Your task to perform on an android device: turn pop-ups off in chrome Image 0: 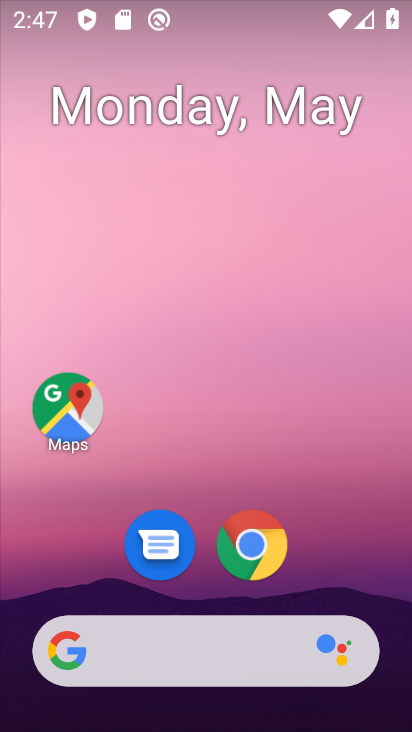
Step 0: click (255, 554)
Your task to perform on an android device: turn pop-ups off in chrome Image 1: 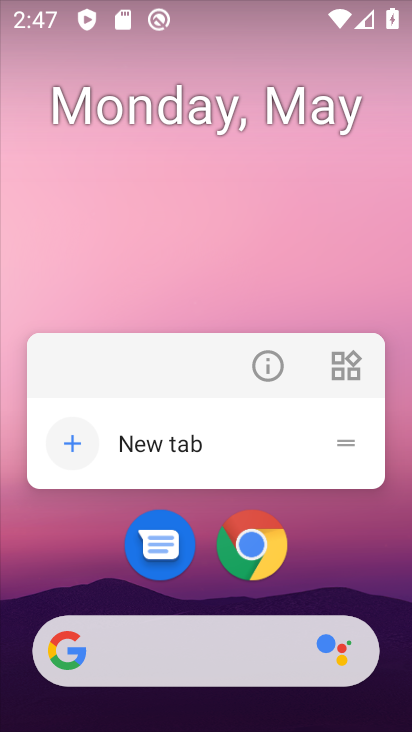
Step 1: click (249, 558)
Your task to perform on an android device: turn pop-ups off in chrome Image 2: 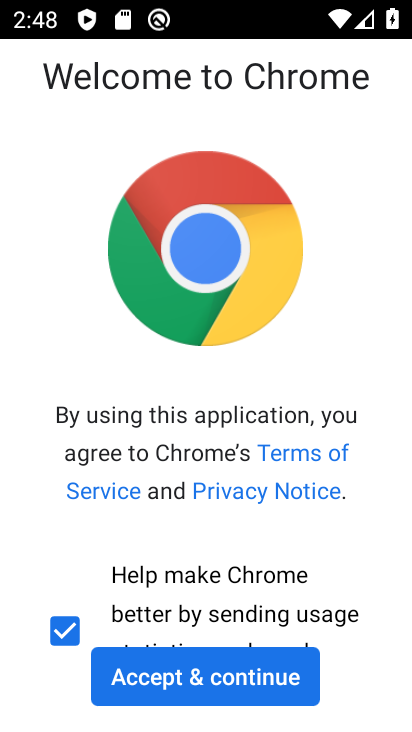
Step 2: click (169, 678)
Your task to perform on an android device: turn pop-ups off in chrome Image 3: 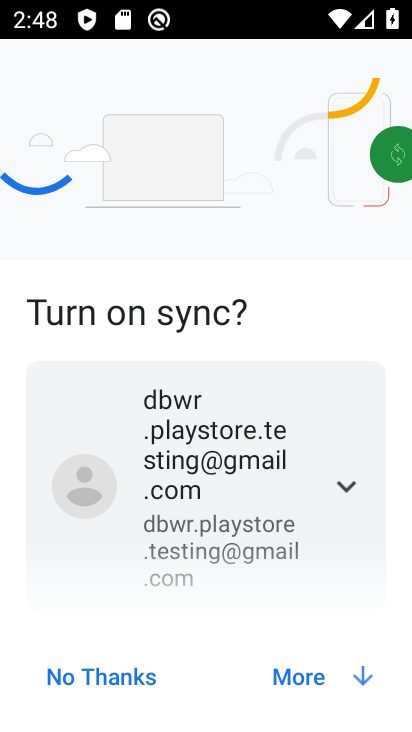
Step 3: click (327, 675)
Your task to perform on an android device: turn pop-ups off in chrome Image 4: 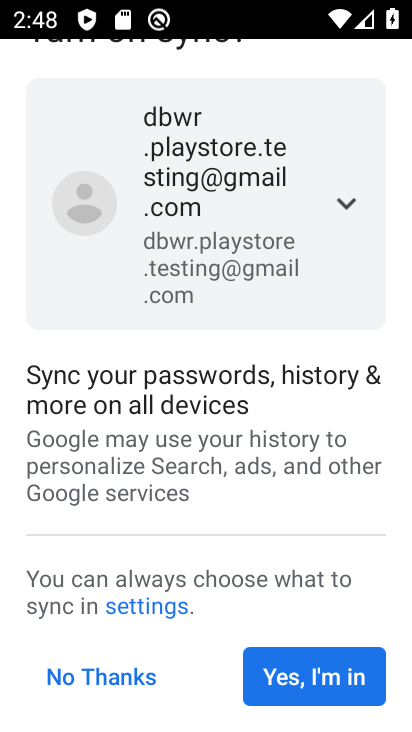
Step 4: click (333, 680)
Your task to perform on an android device: turn pop-ups off in chrome Image 5: 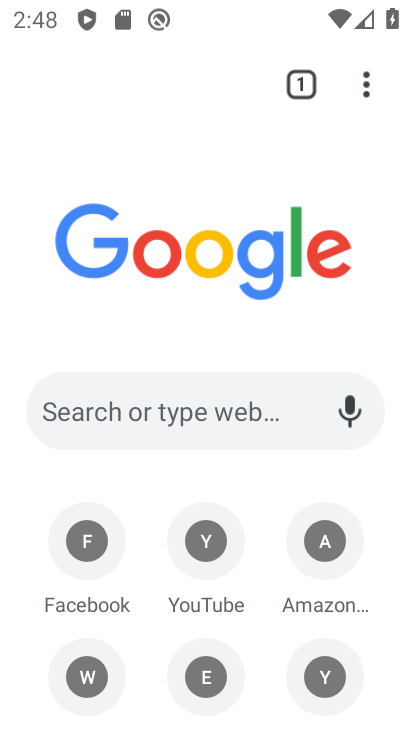
Step 5: click (362, 95)
Your task to perform on an android device: turn pop-ups off in chrome Image 6: 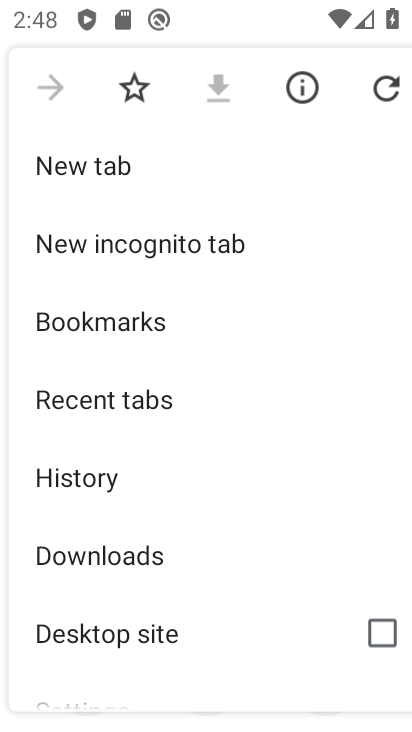
Step 6: drag from (157, 632) to (156, 272)
Your task to perform on an android device: turn pop-ups off in chrome Image 7: 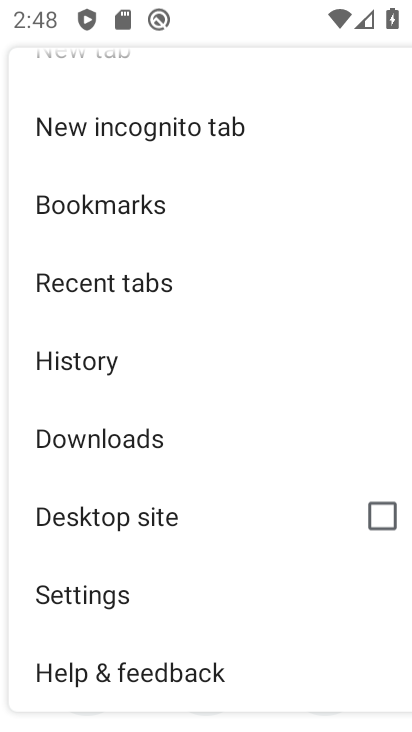
Step 7: click (73, 597)
Your task to perform on an android device: turn pop-ups off in chrome Image 8: 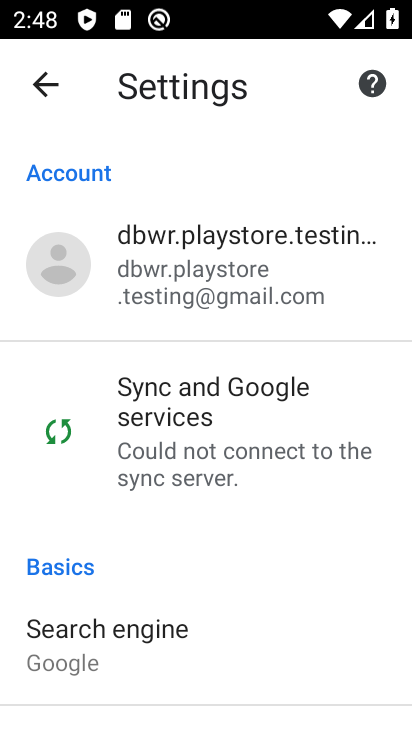
Step 8: drag from (222, 673) to (301, 212)
Your task to perform on an android device: turn pop-ups off in chrome Image 9: 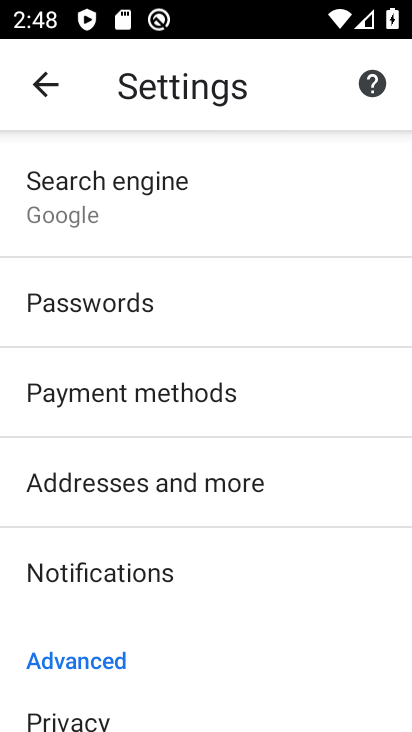
Step 9: drag from (323, 663) to (310, 339)
Your task to perform on an android device: turn pop-ups off in chrome Image 10: 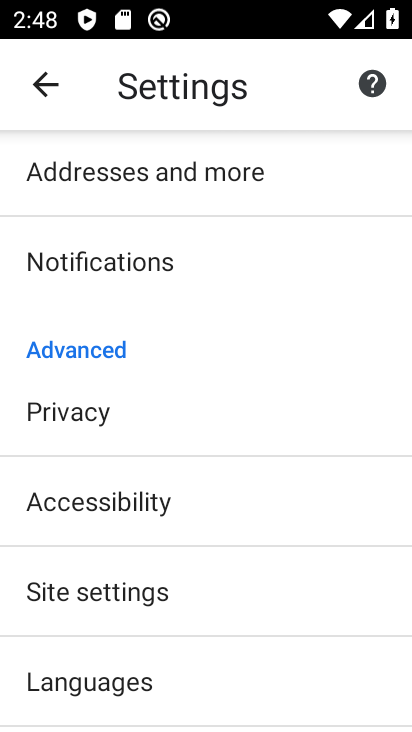
Step 10: drag from (264, 671) to (269, 411)
Your task to perform on an android device: turn pop-ups off in chrome Image 11: 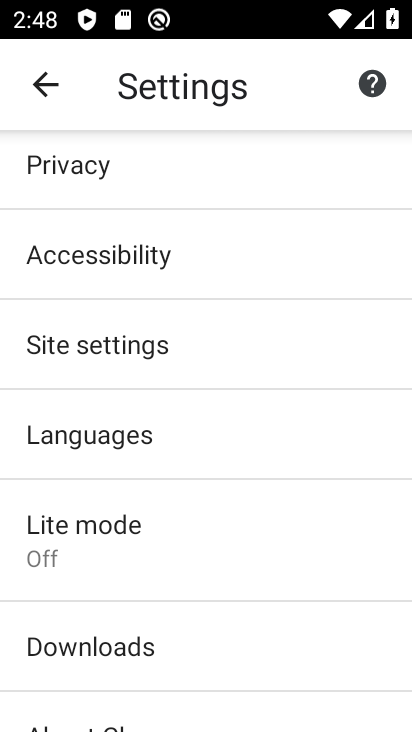
Step 11: click (135, 345)
Your task to perform on an android device: turn pop-ups off in chrome Image 12: 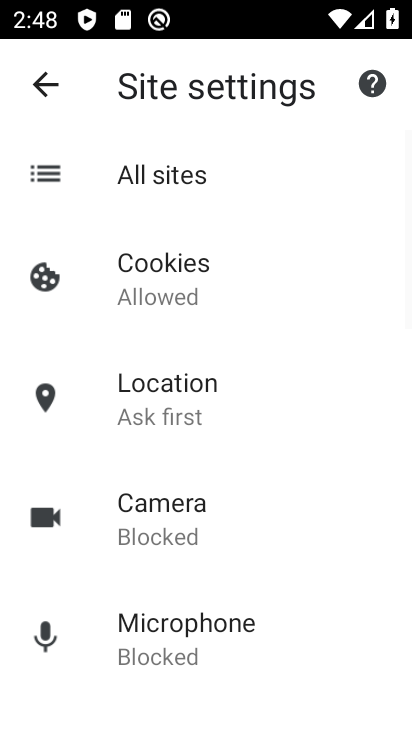
Step 12: drag from (282, 649) to (275, 321)
Your task to perform on an android device: turn pop-ups off in chrome Image 13: 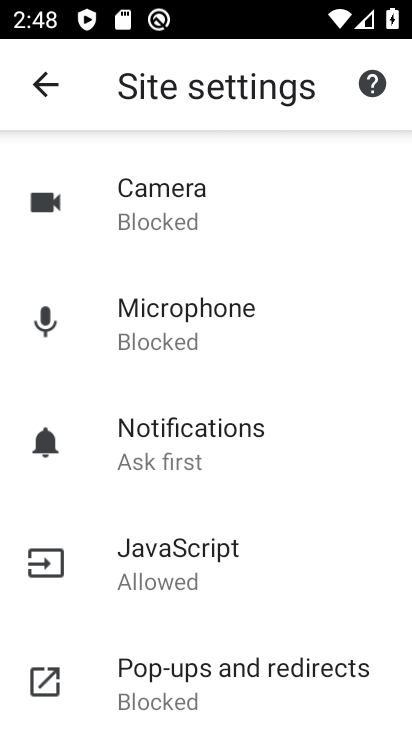
Step 13: click (250, 679)
Your task to perform on an android device: turn pop-ups off in chrome Image 14: 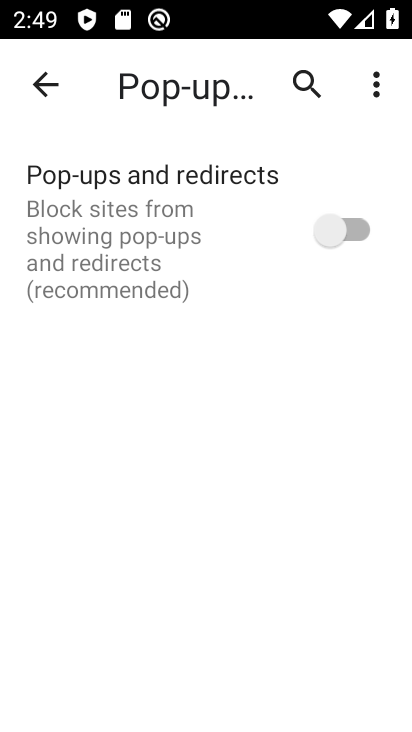
Step 14: task complete